Your task to perform on an android device: refresh tabs in the chrome app Image 0: 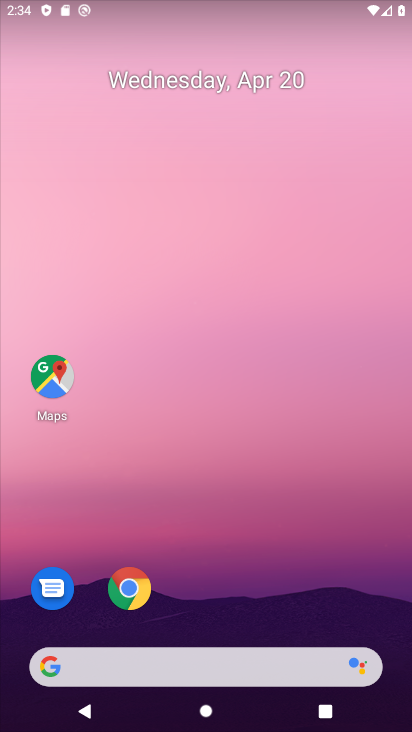
Step 0: drag from (316, 631) to (279, 93)
Your task to perform on an android device: refresh tabs in the chrome app Image 1: 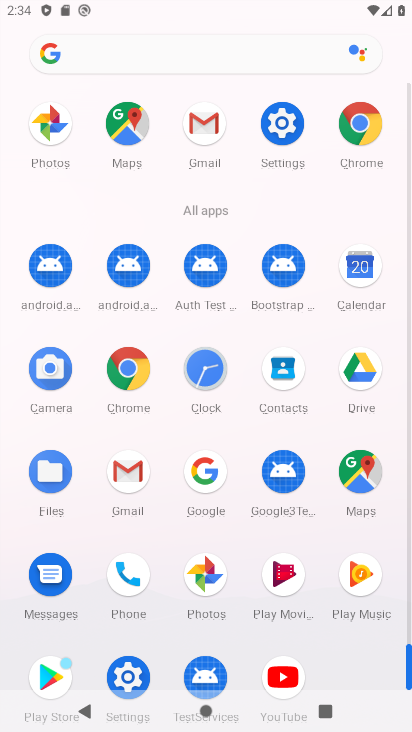
Step 1: click (106, 378)
Your task to perform on an android device: refresh tabs in the chrome app Image 2: 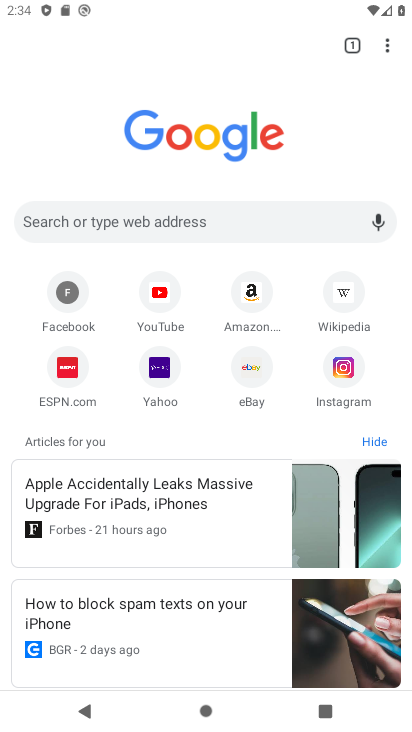
Step 2: click (384, 48)
Your task to perform on an android device: refresh tabs in the chrome app Image 3: 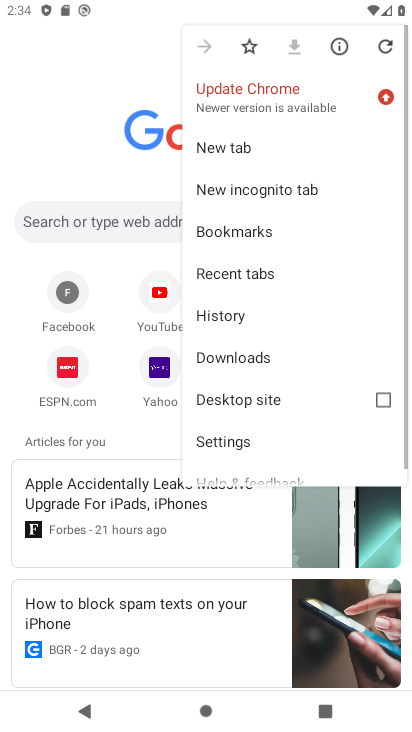
Step 3: click (384, 48)
Your task to perform on an android device: refresh tabs in the chrome app Image 4: 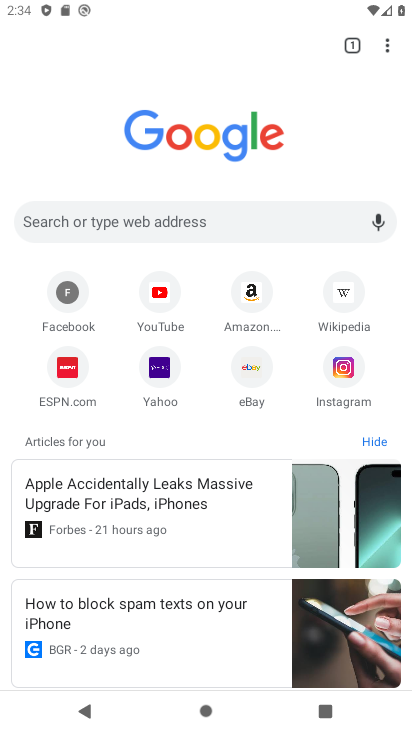
Step 4: task complete